Your task to perform on an android device: Open settings on Google Maps Image 0: 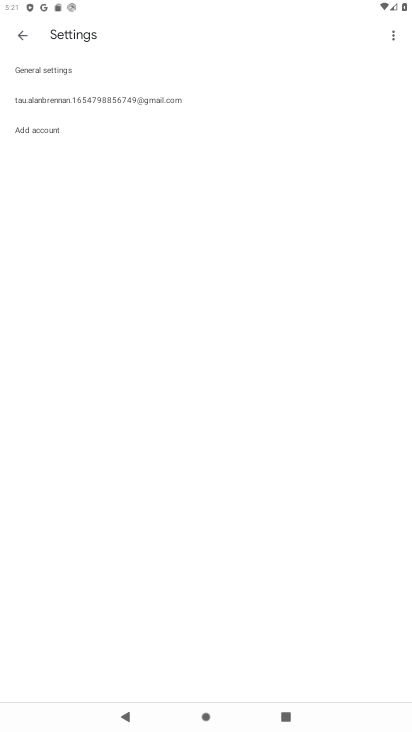
Step 0: press home button
Your task to perform on an android device: Open settings on Google Maps Image 1: 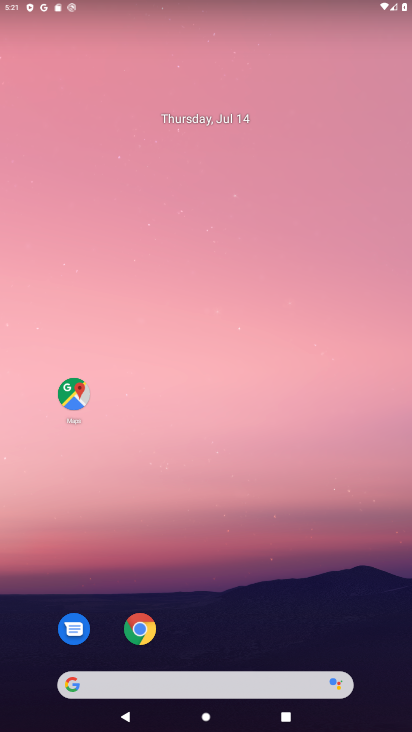
Step 1: drag from (268, 659) to (338, 11)
Your task to perform on an android device: Open settings on Google Maps Image 2: 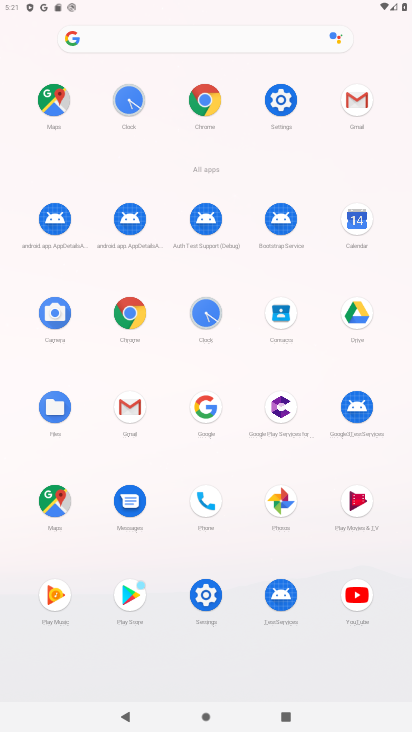
Step 2: click (52, 502)
Your task to perform on an android device: Open settings on Google Maps Image 3: 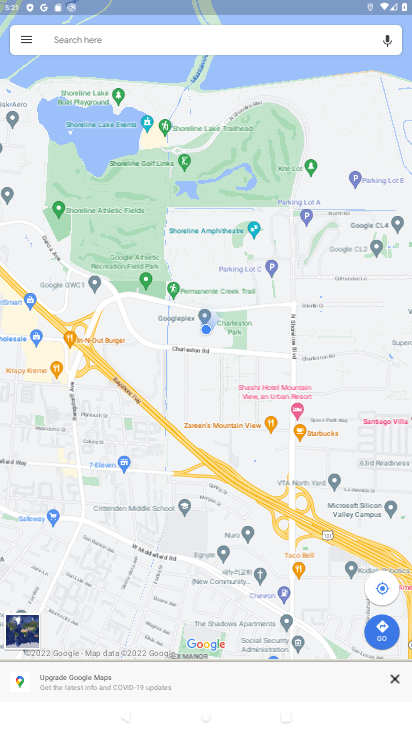
Step 3: click (25, 38)
Your task to perform on an android device: Open settings on Google Maps Image 4: 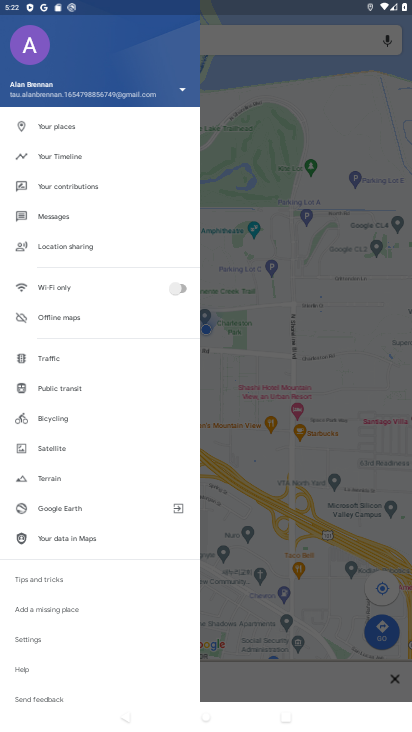
Step 4: click (70, 145)
Your task to perform on an android device: Open settings on Google Maps Image 5: 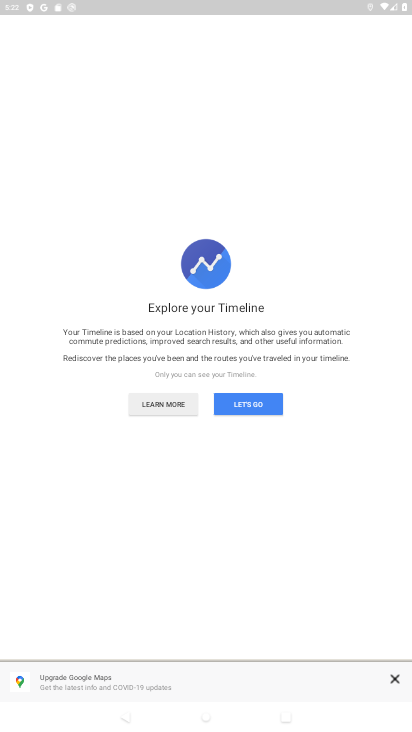
Step 5: click (237, 409)
Your task to perform on an android device: Open settings on Google Maps Image 6: 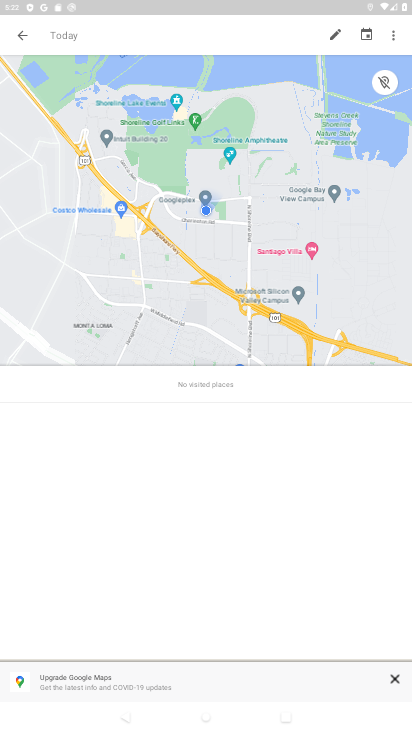
Step 6: click (394, 34)
Your task to perform on an android device: Open settings on Google Maps Image 7: 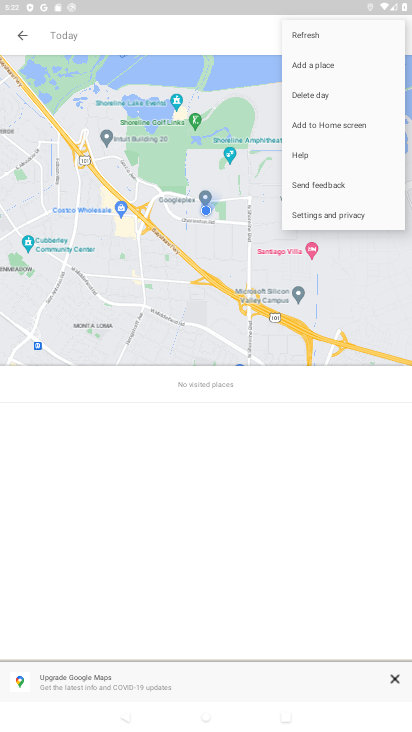
Step 7: click (335, 216)
Your task to perform on an android device: Open settings on Google Maps Image 8: 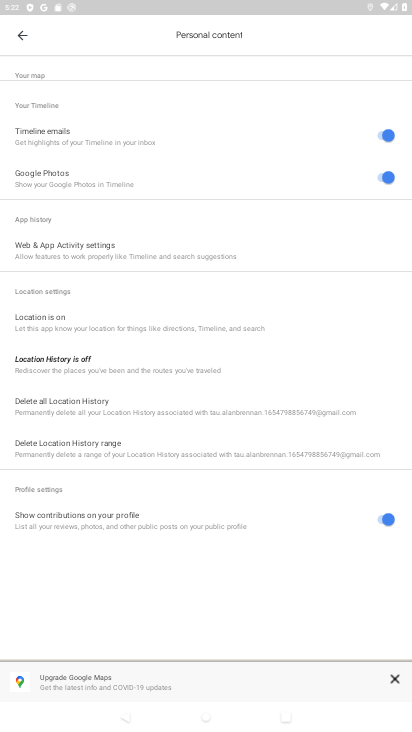
Step 8: task complete